Your task to perform on an android device: Search for "logitech g pro" on walmart.com, select the first entry, add it to the cart, then select checkout. Image 0: 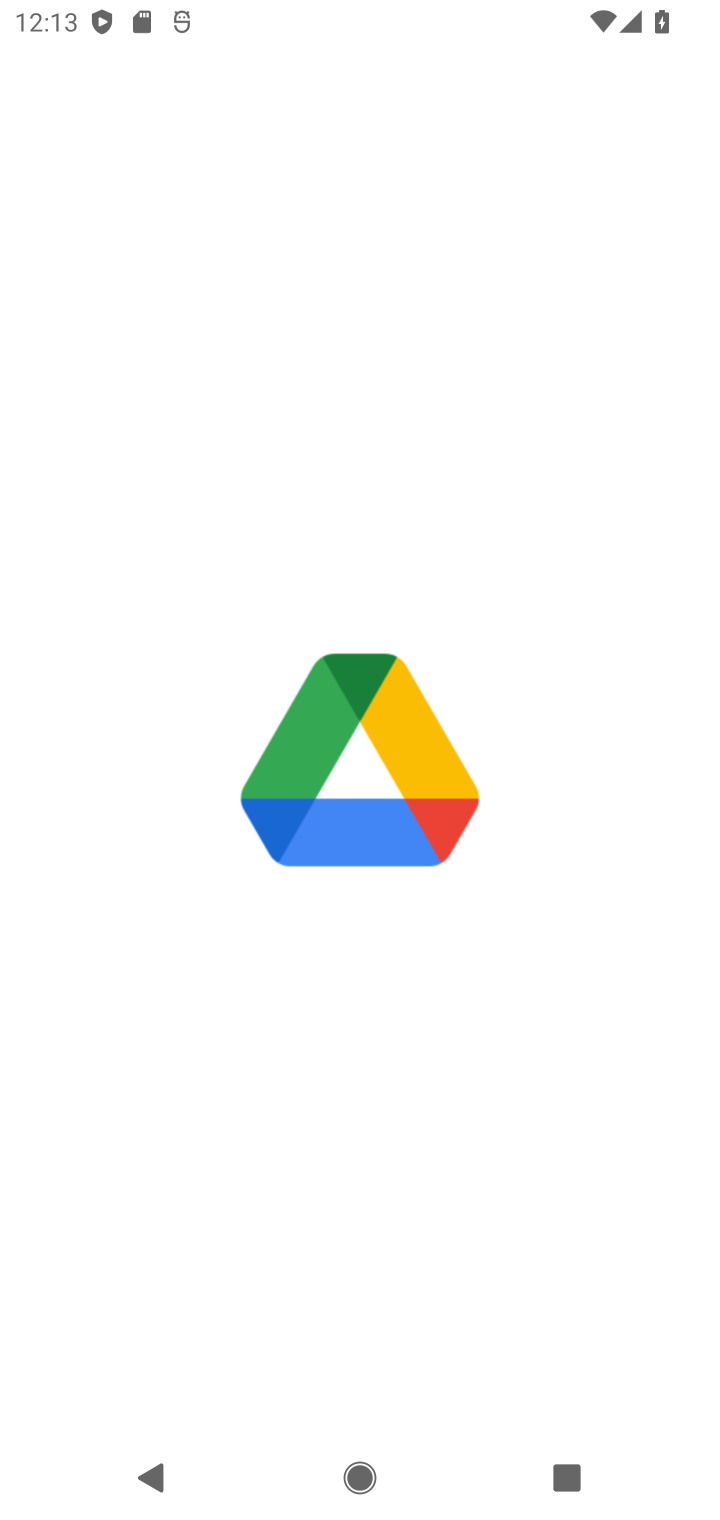
Step 0: press home button
Your task to perform on an android device: Search for "logitech g pro" on walmart.com, select the first entry, add it to the cart, then select checkout. Image 1: 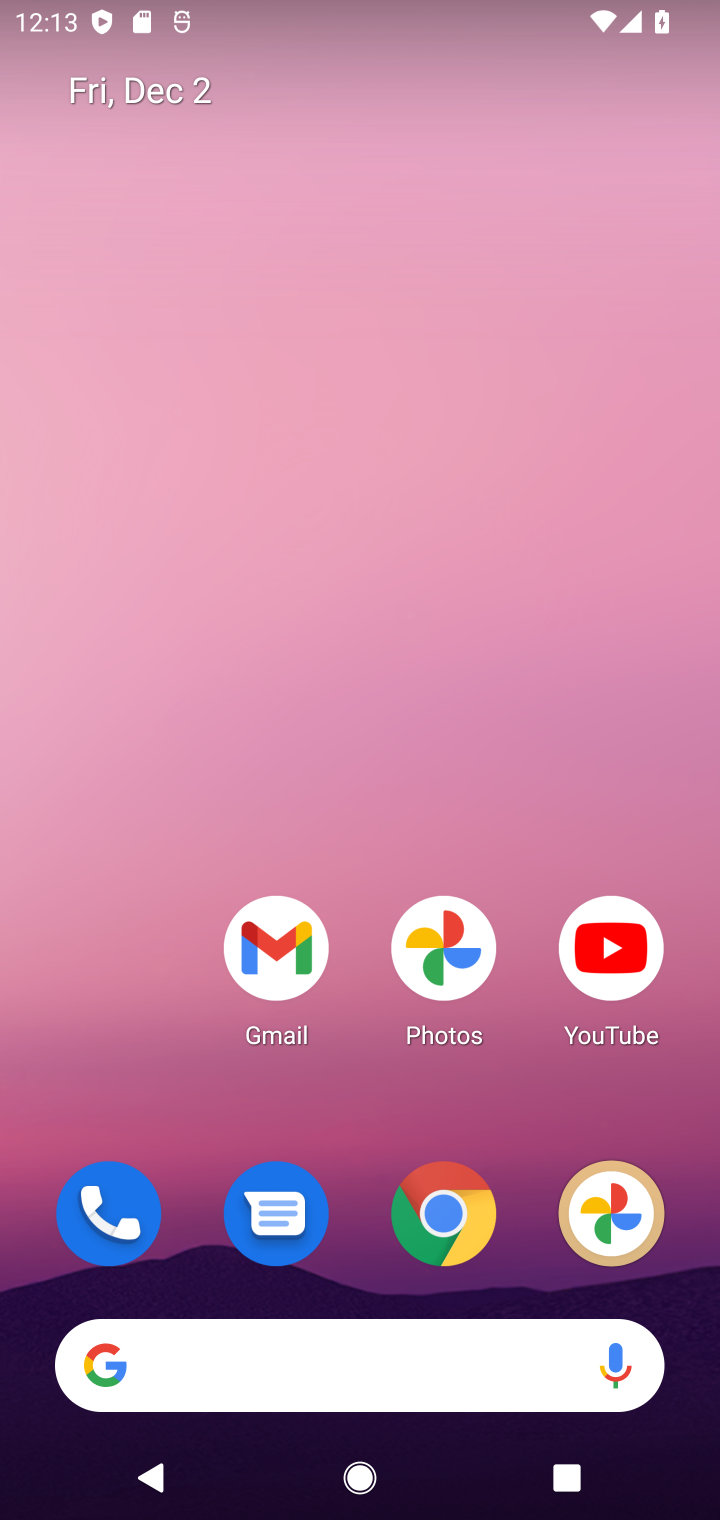
Step 1: drag from (320, 1343) to (284, 829)
Your task to perform on an android device: Search for "logitech g pro" on walmart.com, select the first entry, add it to the cart, then select checkout. Image 2: 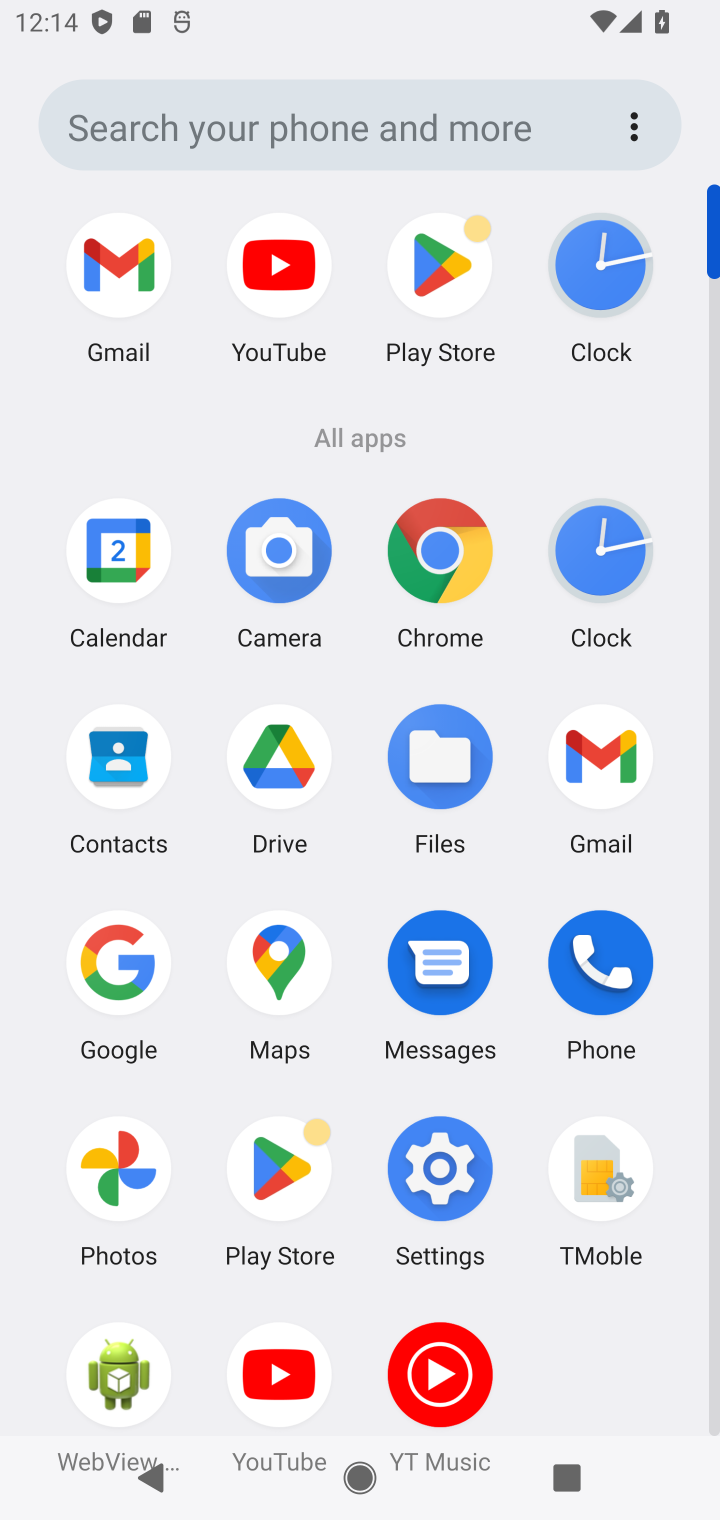
Step 2: click (107, 957)
Your task to perform on an android device: Search for "logitech g pro" on walmart.com, select the first entry, add it to the cart, then select checkout. Image 3: 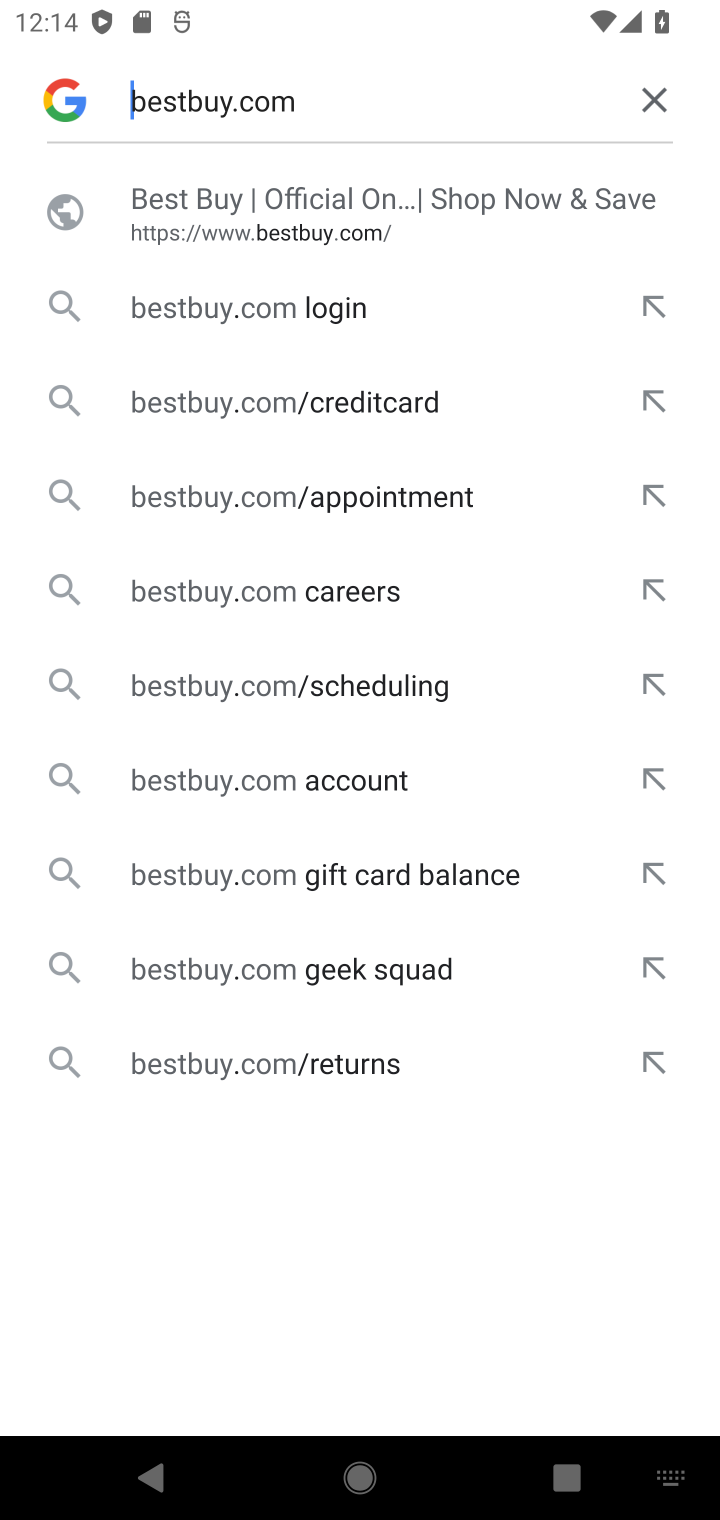
Step 3: click (223, 99)
Your task to perform on an android device: Search for "logitech g pro" on walmart.com, select the first entry, add it to the cart, then select checkout. Image 4: 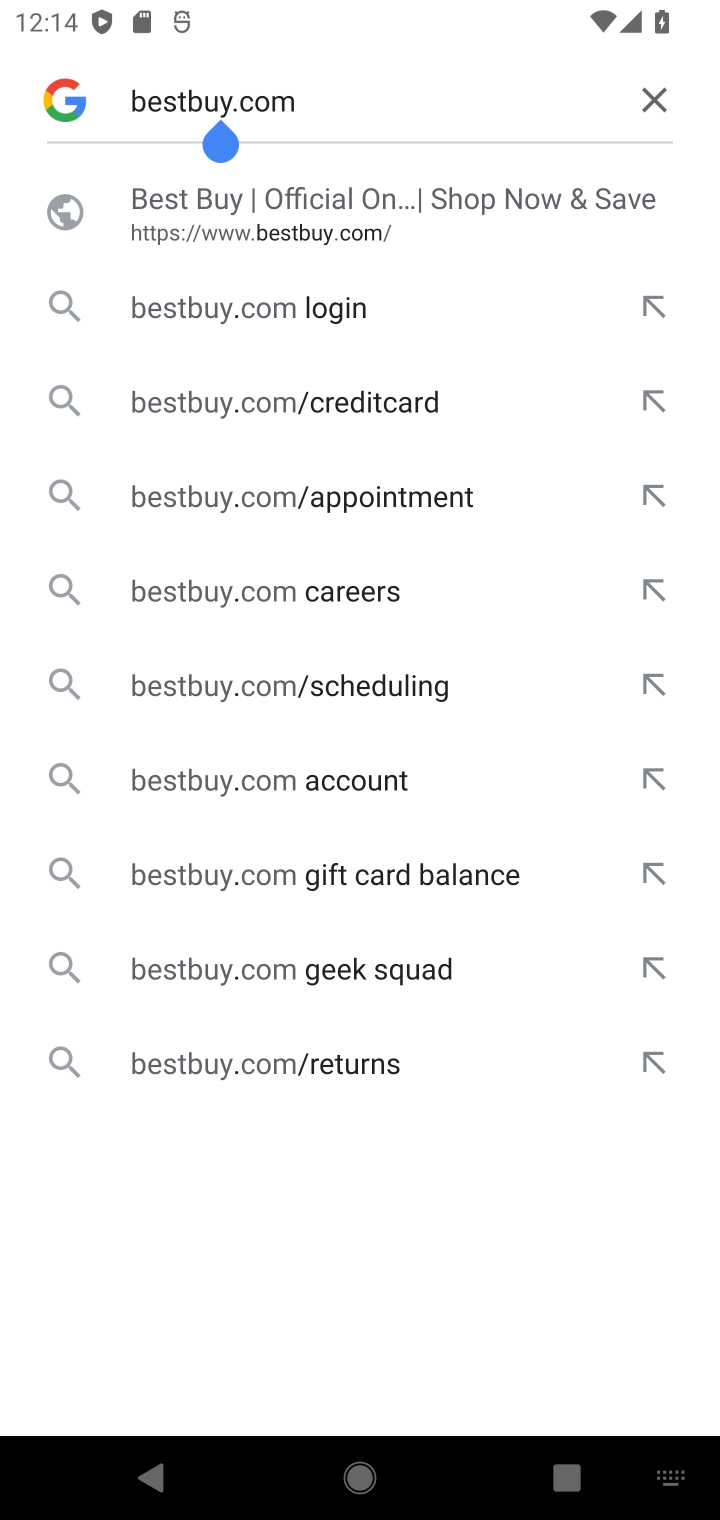
Step 4: click (664, 89)
Your task to perform on an android device: Search for "logitech g pro" on walmart.com, select the first entry, add it to the cart, then select checkout. Image 5: 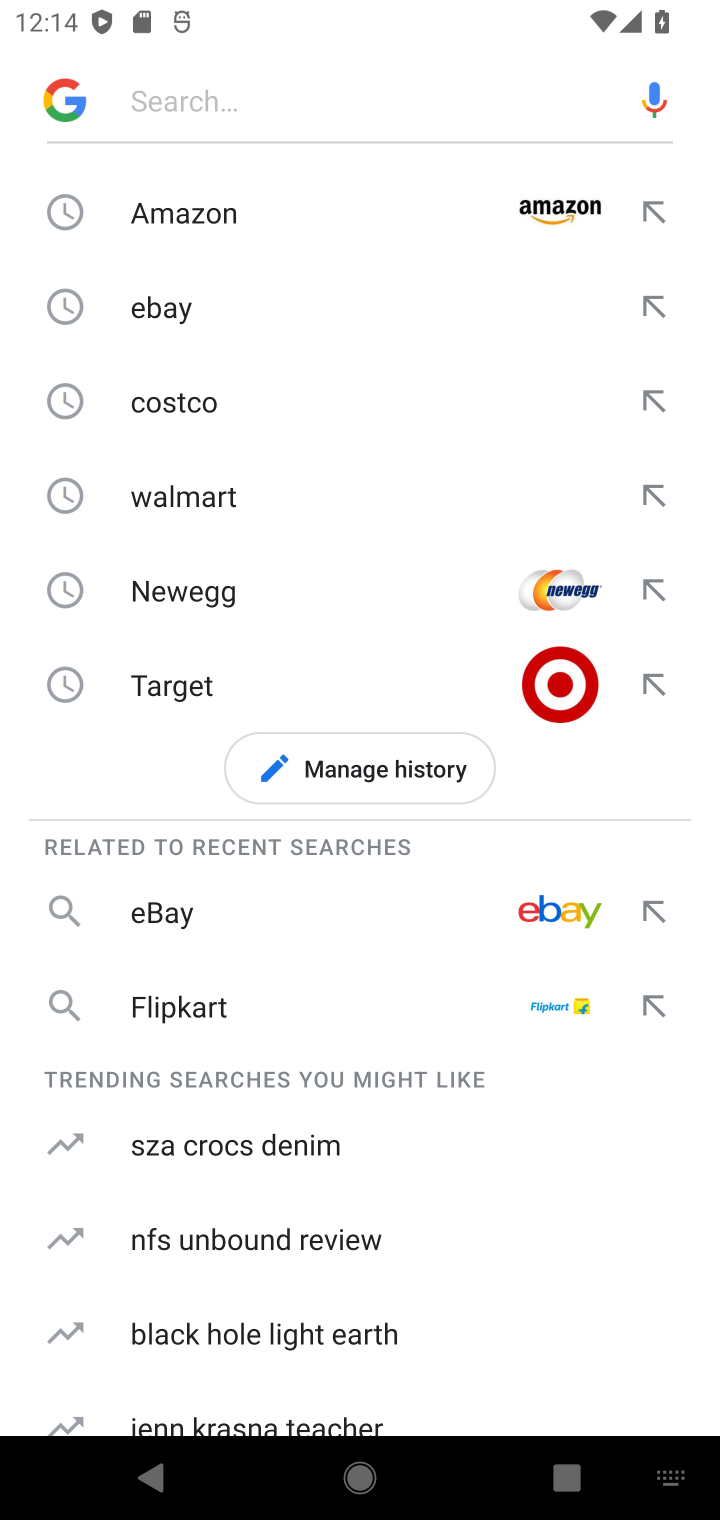
Step 5: click (294, 90)
Your task to perform on an android device: Search for "logitech g pro" on walmart.com, select the first entry, add it to the cart, then select checkout. Image 6: 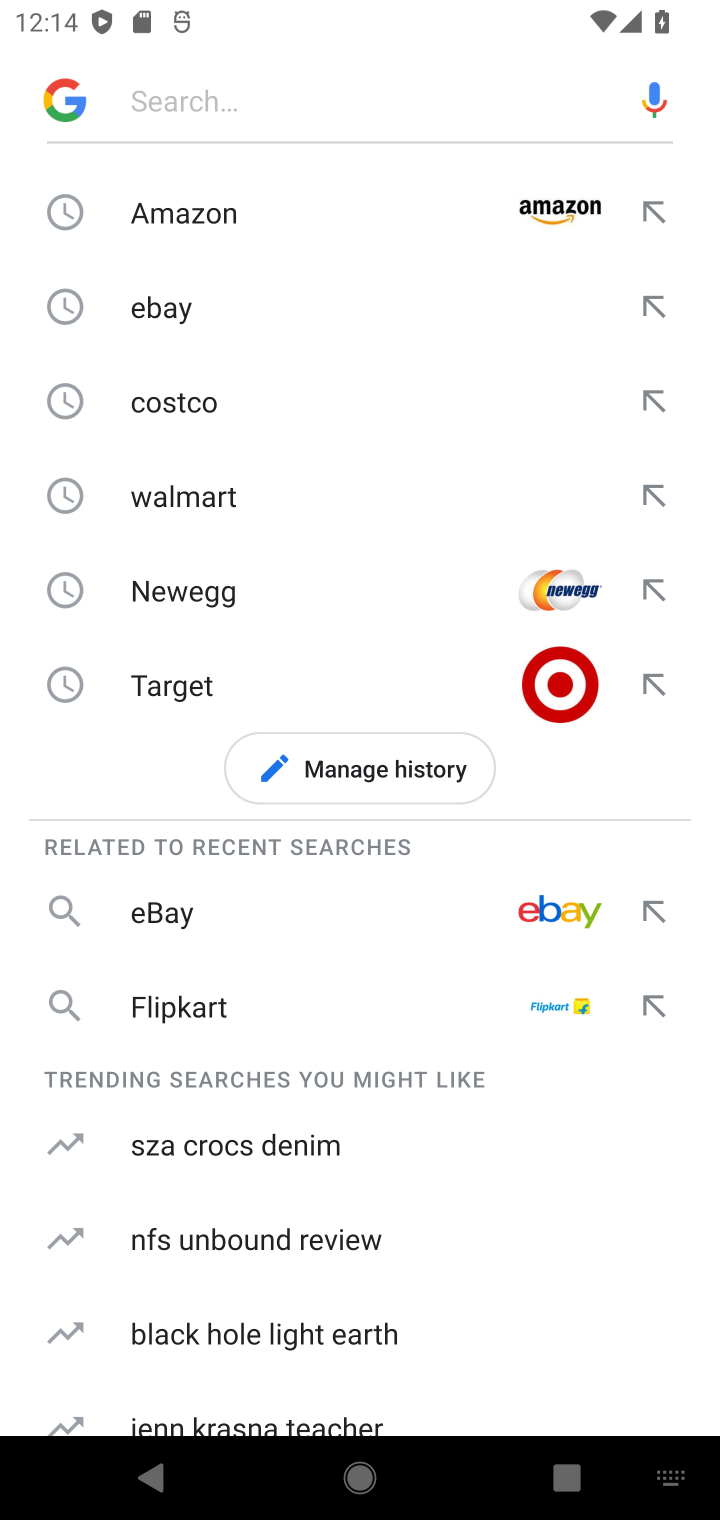
Step 6: click (181, 501)
Your task to perform on an android device: Search for "logitech g pro" on walmart.com, select the first entry, add it to the cart, then select checkout. Image 7: 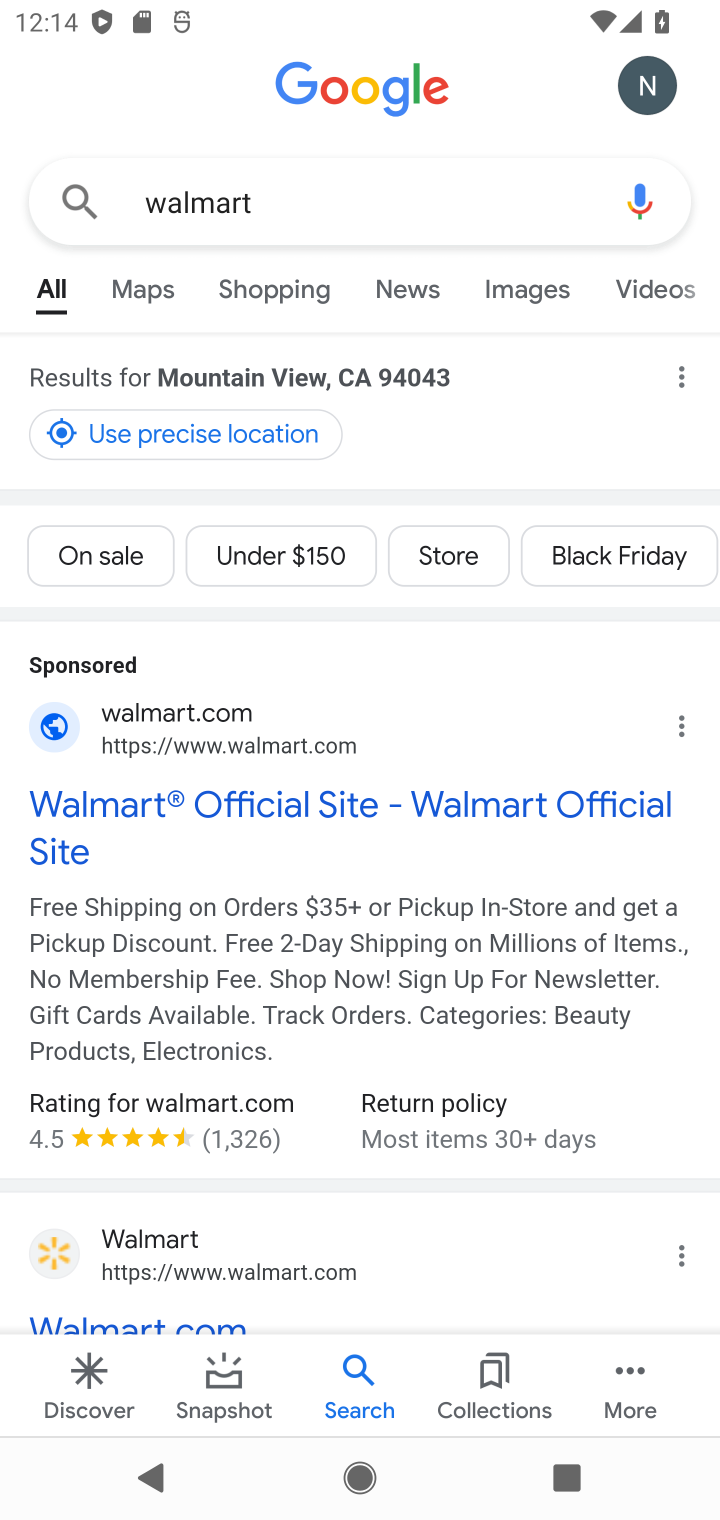
Step 7: click (252, 801)
Your task to perform on an android device: Search for "logitech g pro" on walmart.com, select the first entry, add it to the cart, then select checkout. Image 8: 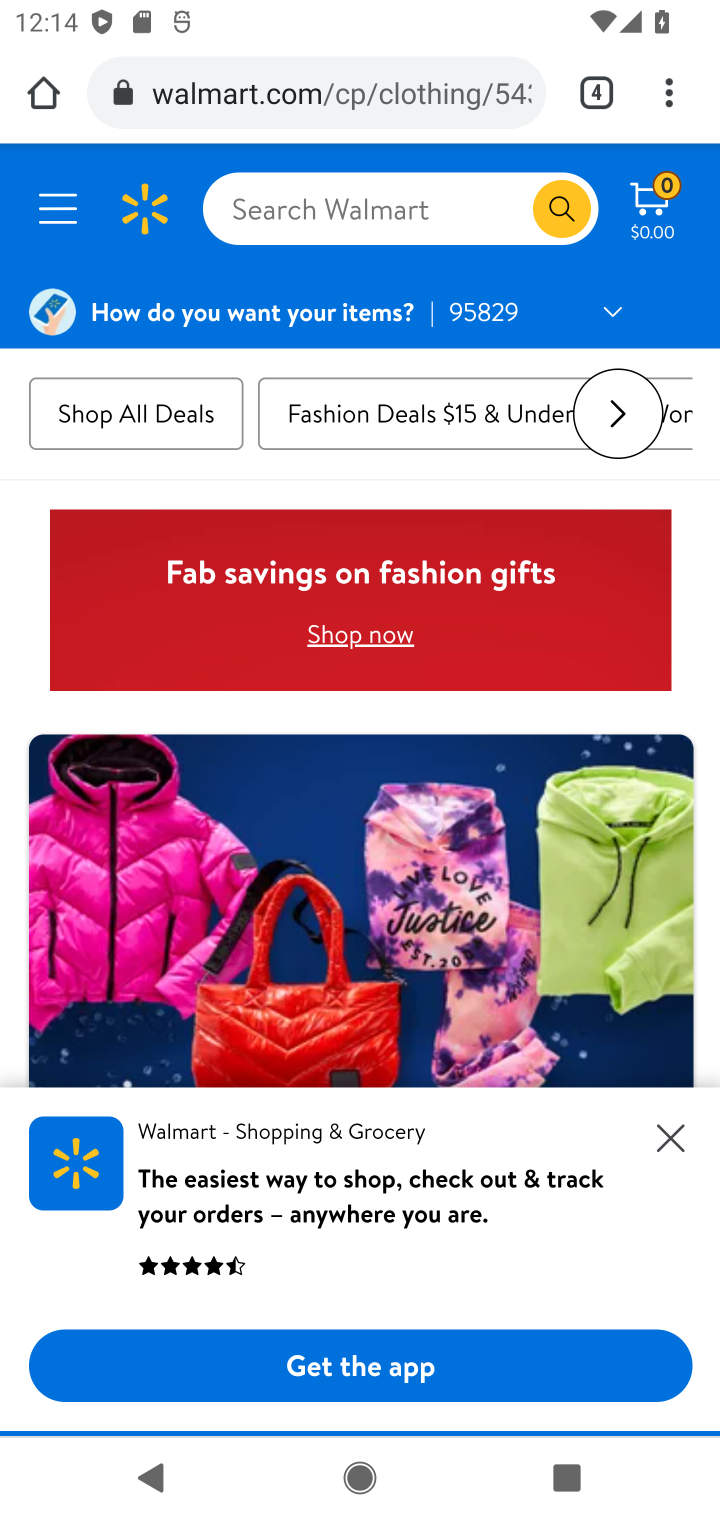
Step 8: click (687, 1131)
Your task to perform on an android device: Search for "logitech g pro" on walmart.com, select the first entry, add it to the cart, then select checkout. Image 9: 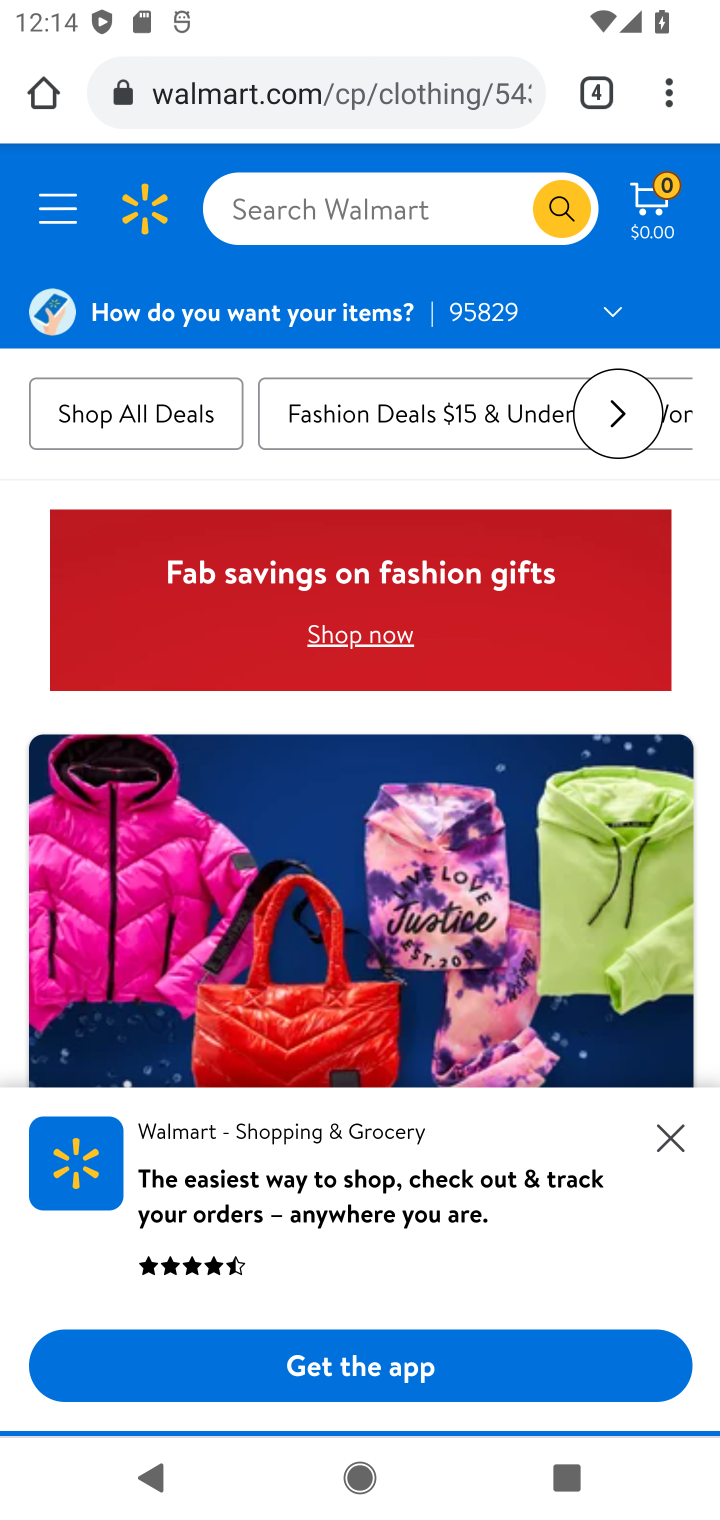
Step 9: click (676, 1150)
Your task to perform on an android device: Search for "logitech g pro" on walmart.com, select the first entry, add it to the cart, then select checkout. Image 10: 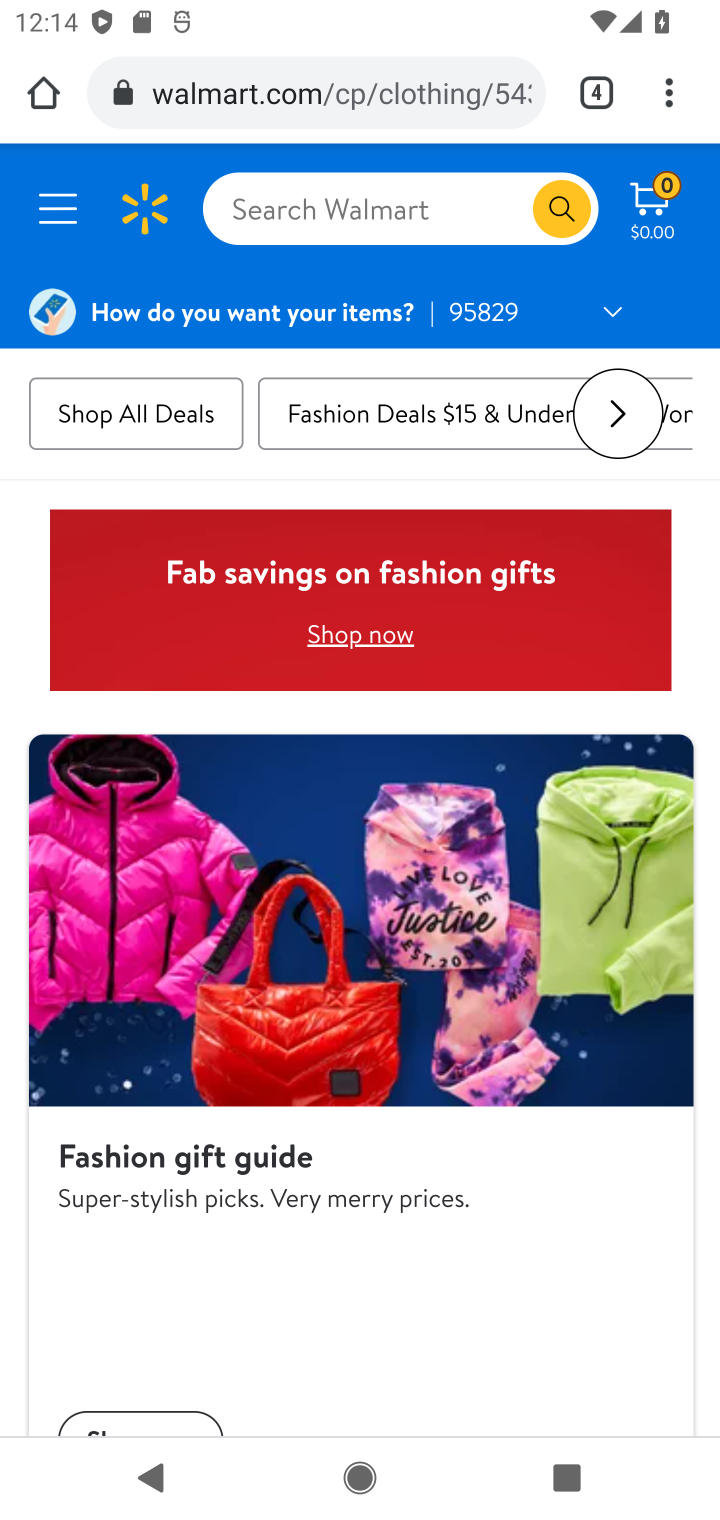
Step 10: drag from (316, 1217) to (316, 591)
Your task to perform on an android device: Search for "logitech g pro" on walmart.com, select the first entry, add it to the cart, then select checkout. Image 11: 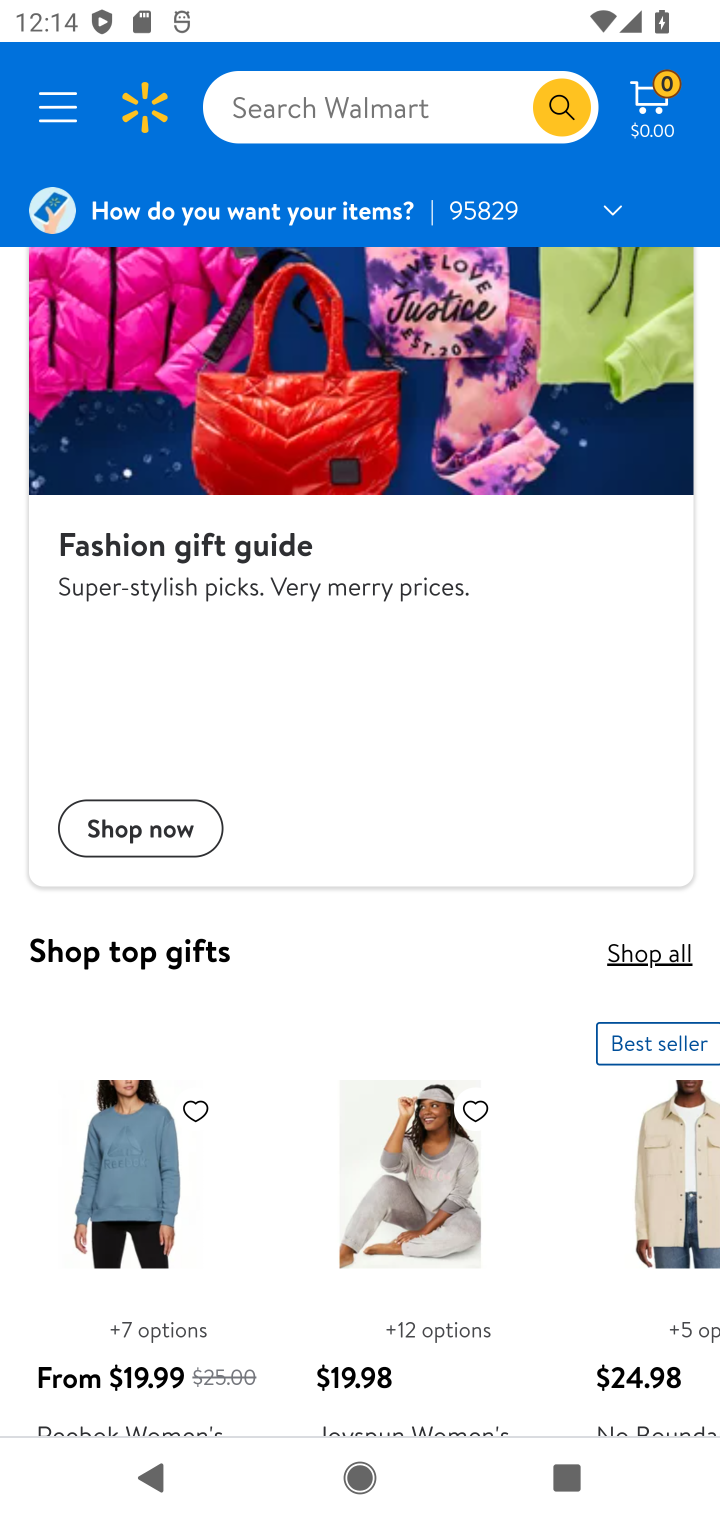
Step 11: click (329, 103)
Your task to perform on an android device: Search for "logitech g pro" on walmart.com, select the first entry, add it to the cart, then select checkout. Image 12: 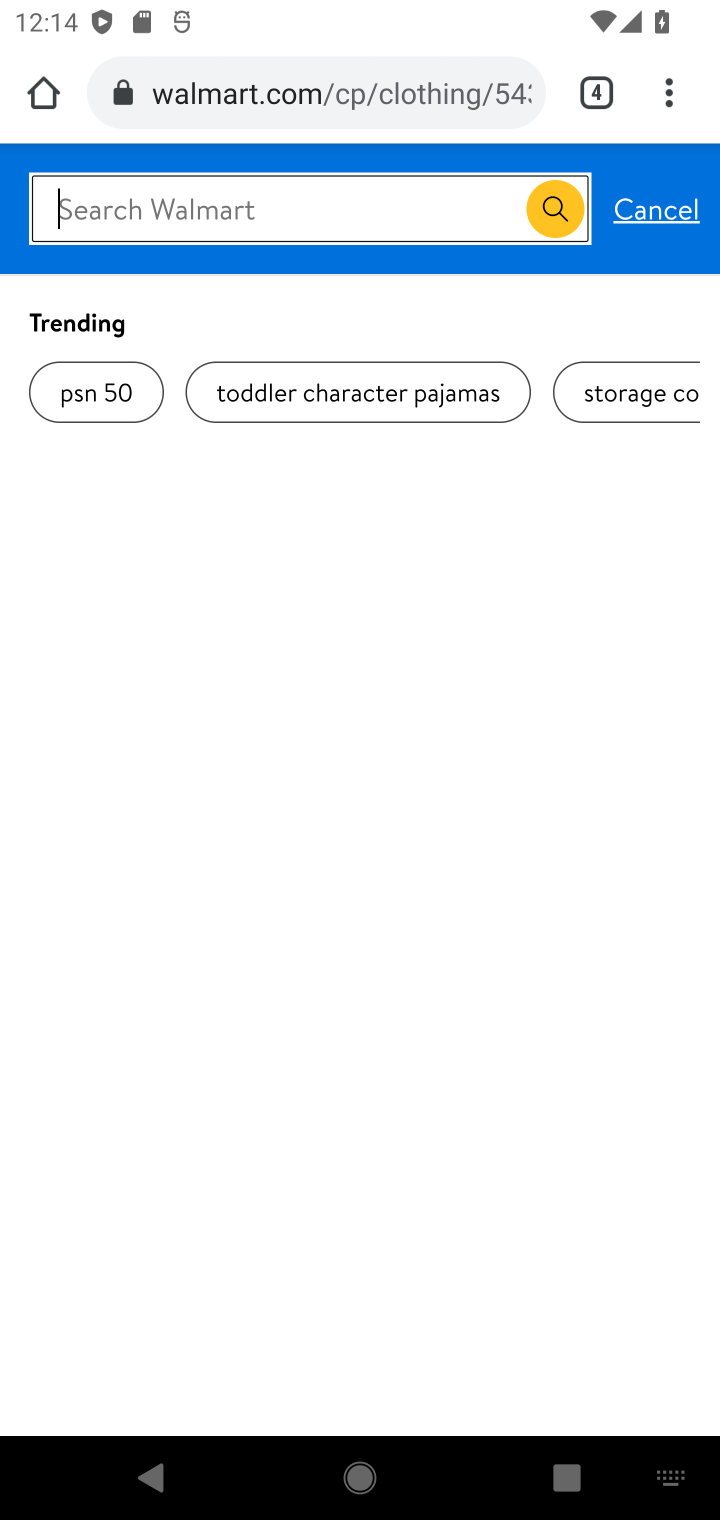
Step 12: type "logitech g pro"
Your task to perform on an android device: Search for "logitech g pro" on walmart.com, select the first entry, add it to the cart, then select checkout. Image 13: 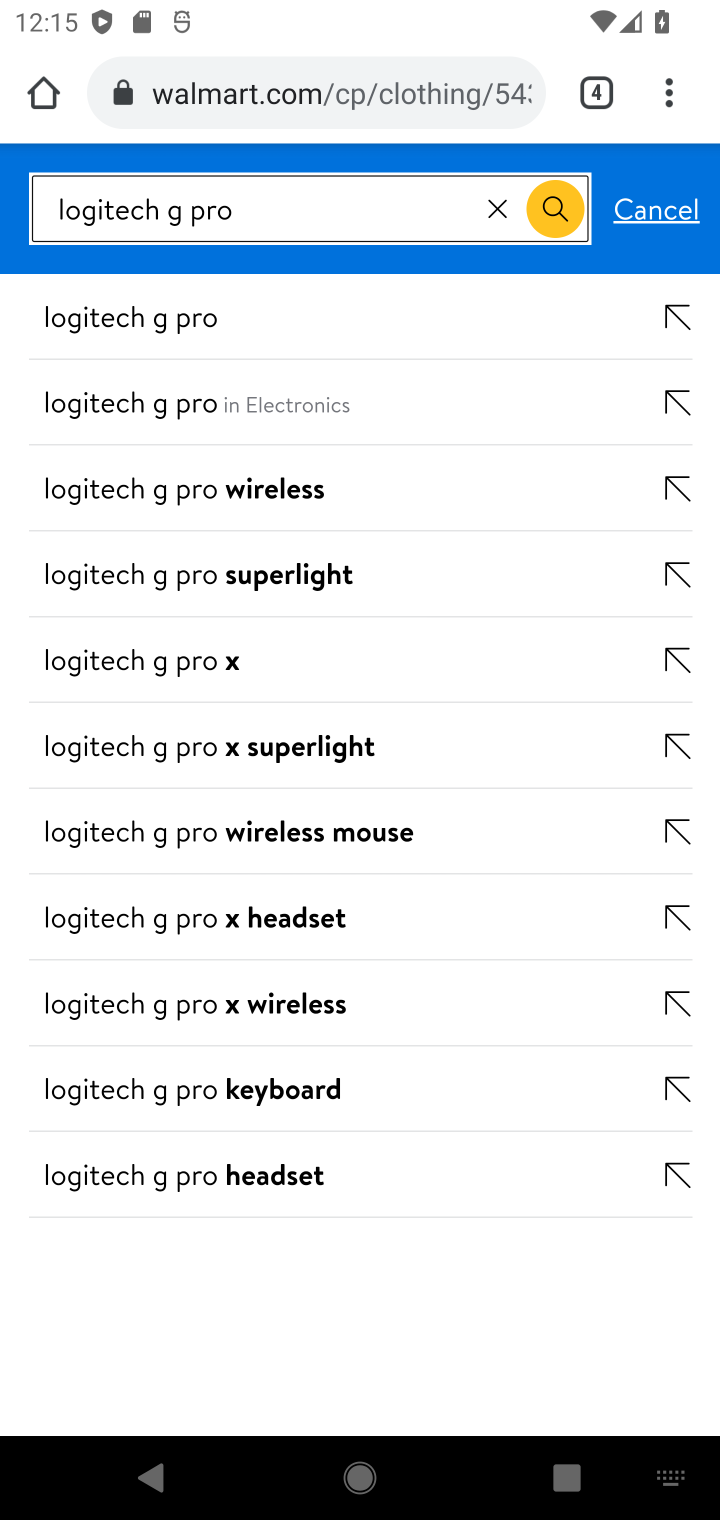
Step 13: click (182, 313)
Your task to perform on an android device: Search for "logitech g pro" on walmart.com, select the first entry, add it to the cart, then select checkout. Image 14: 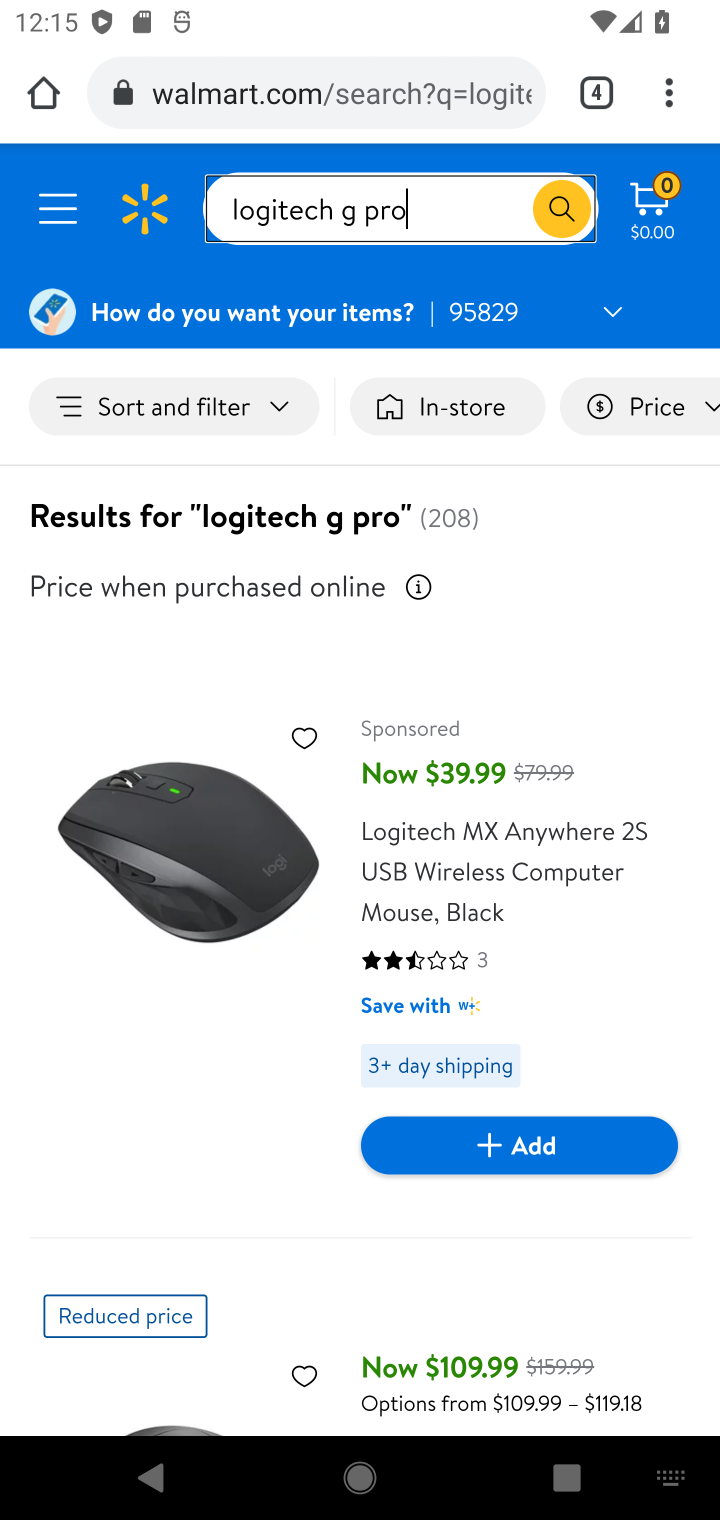
Step 14: click (543, 1138)
Your task to perform on an android device: Search for "logitech g pro" on walmart.com, select the first entry, add it to the cart, then select checkout. Image 15: 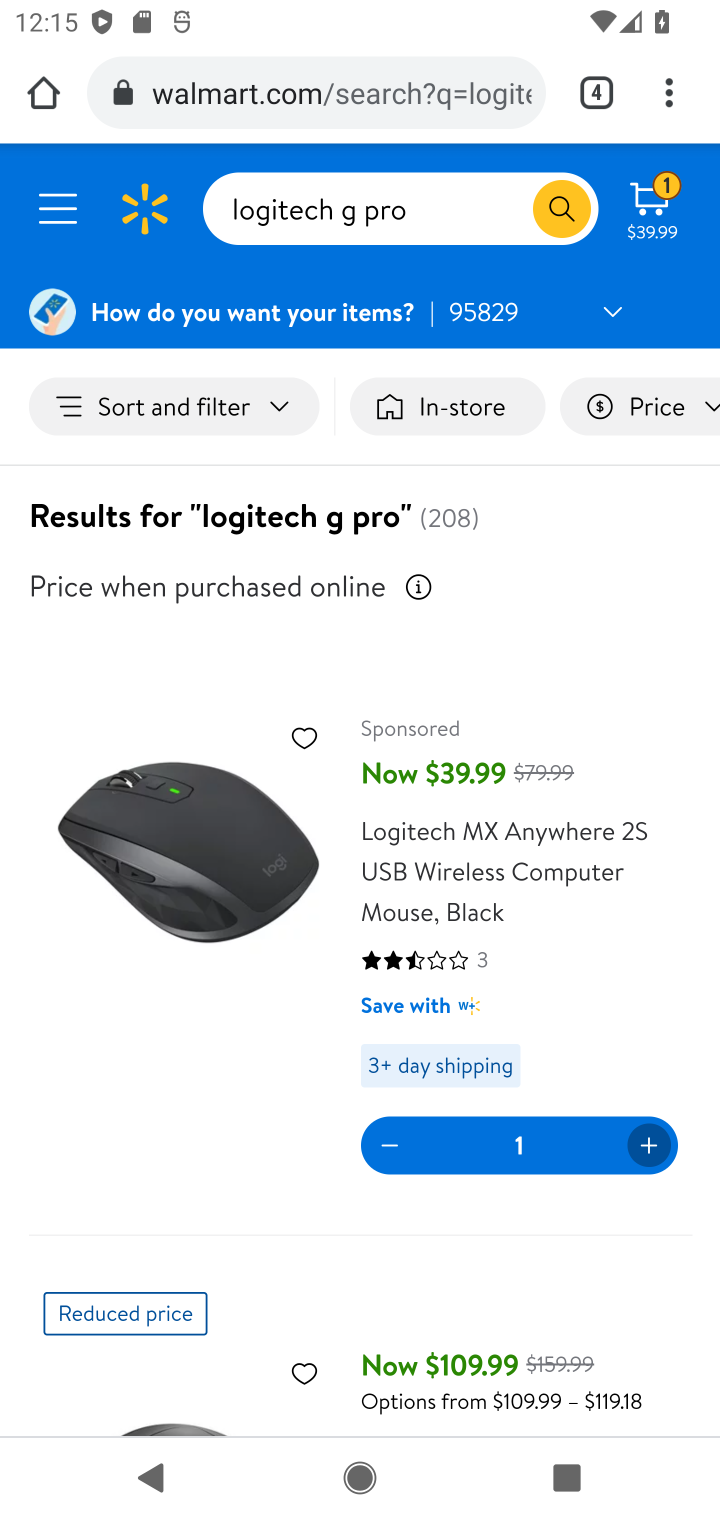
Step 15: click (651, 198)
Your task to perform on an android device: Search for "logitech g pro" on walmart.com, select the first entry, add it to the cart, then select checkout. Image 16: 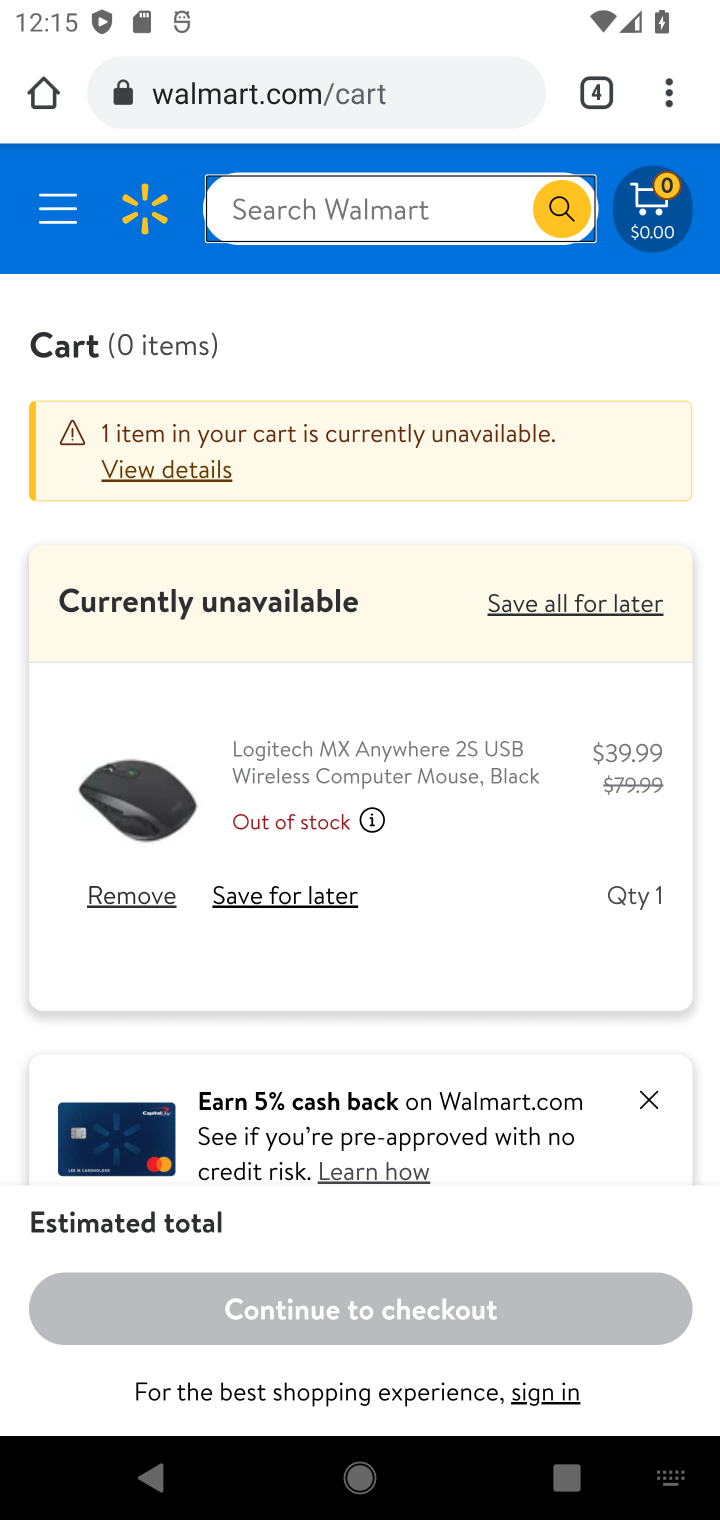
Step 16: task complete